Your task to perform on an android device: Open accessibility settings Image 0: 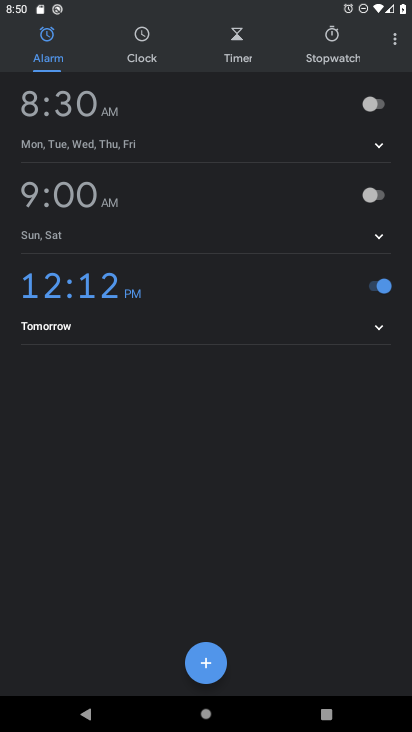
Step 0: press home button
Your task to perform on an android device: Open accessibility settings Image 1: 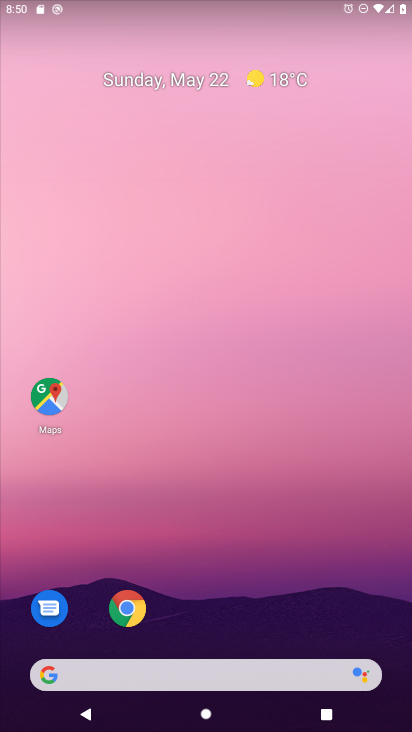
Step 1: drag from (224, 726) to (180, 111)
Your task to perform on an android device: Open accessibility settings Image 2: 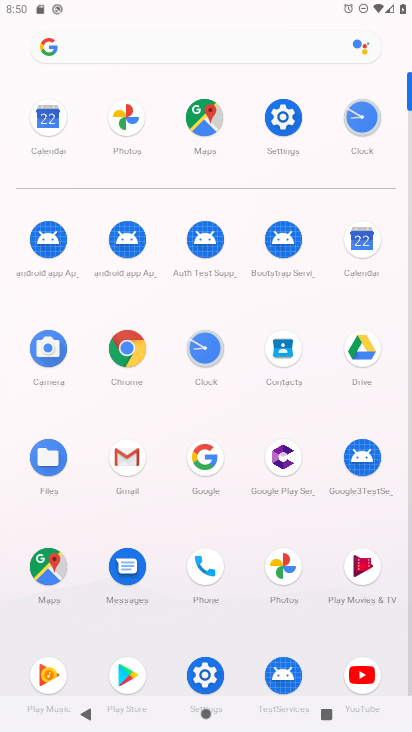
Step 2: click (279, 118)
Your task to perform on an android device: Open accessibility settings Image 3: 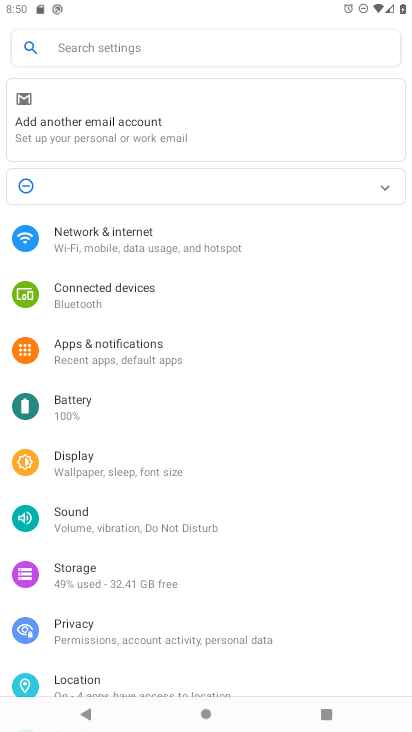
Step 3: drag from (156, 663) to (158, 127)
Your task to perform on an android device: Open accessibility settings Image 4: 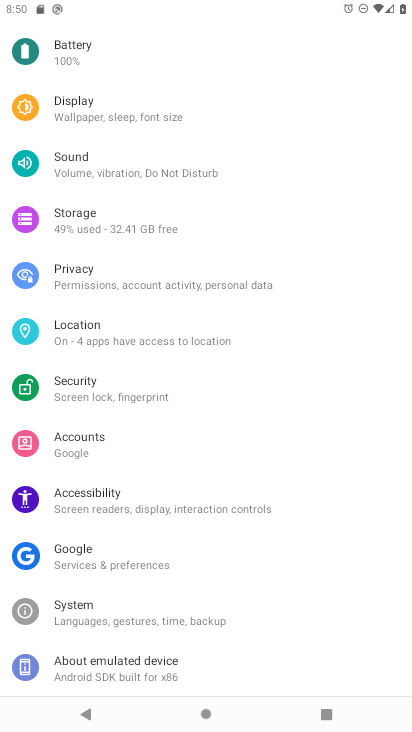
Step 4: click (120, 507)
Your task to perform on an android device: Open accessibility settings Image 5: 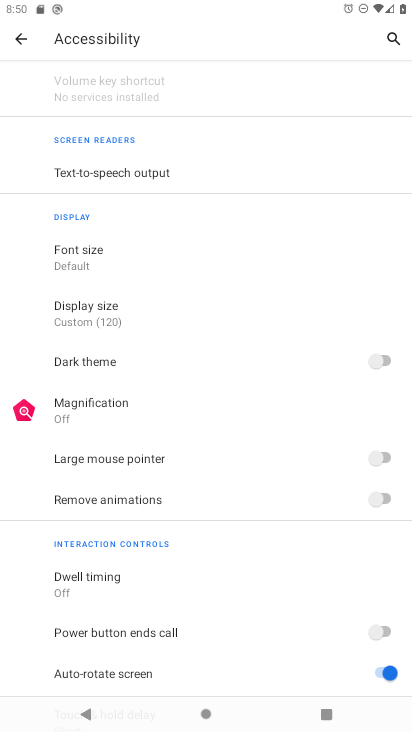
Step 5: task complete